Your task to perform on an android device: Open Google Chrome and open the bookmarks view Image 0: 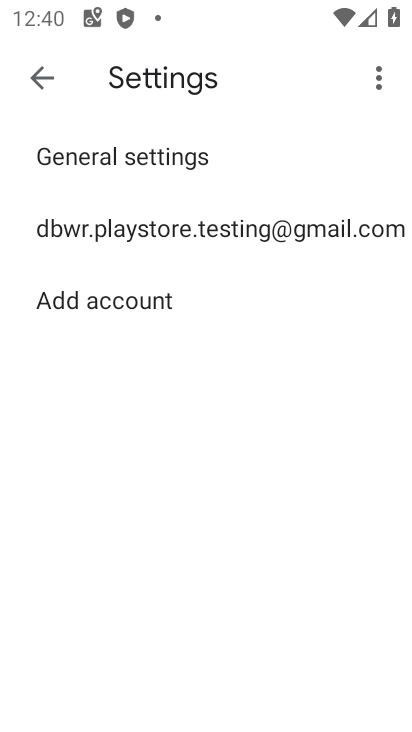
Step 0: press home button
Your task to perform on an android device: Open Google Chrome and open the bookmarks view Image 1: 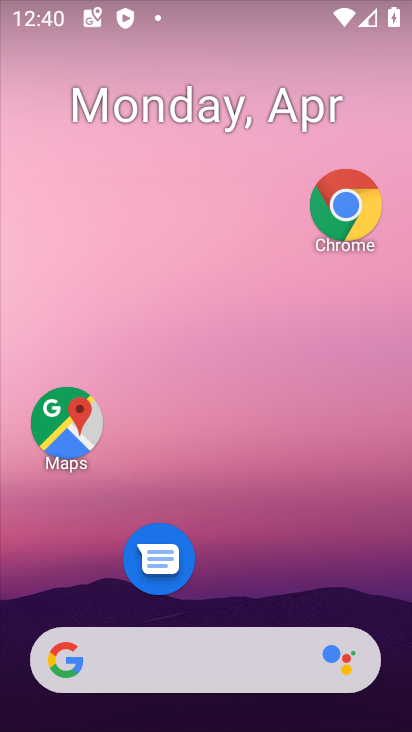
Step 1: click (349, 221)
Your task to perform on an android device: Open Google Chrome and open the bookmarks view Image 2: 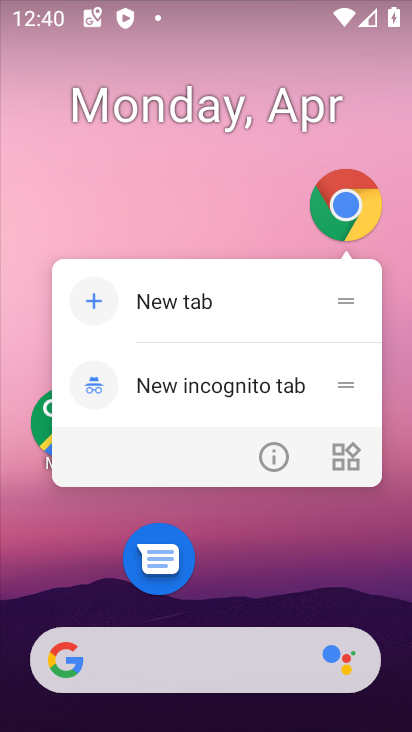
Step 2: click (223, 294)
Your task to perform on an android device: Open Google Chrome and open the bookmarks view Image 3: 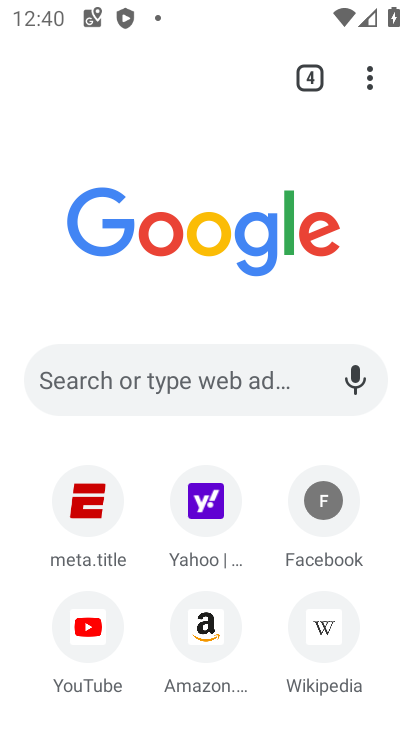
Step 3: click (380, 72)
Your task to perform on an android device: Open Google Chrome and open the bookmarks view Image 4: 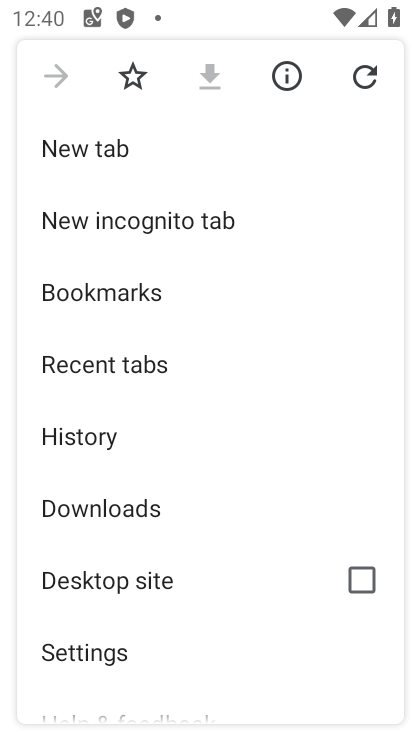
Step 4: click (185, 290)
Your task to perform on an android device: Open Google Chrome and open the bookmarks view Image 5: 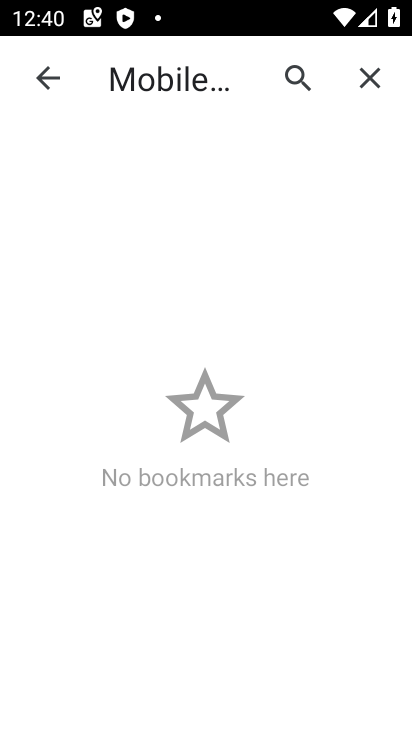
Step 5: task complete